Your task to perform on an android device: Open ESPN.com Image 0: 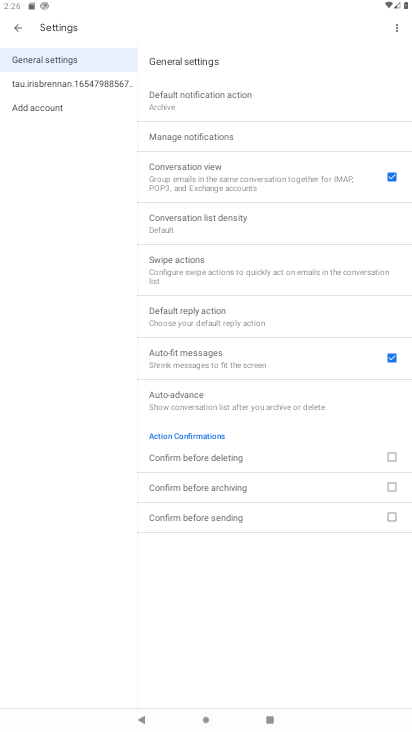
Step 0: press home button
Your task to perform on an android device: Open ESPN.com Image 1: 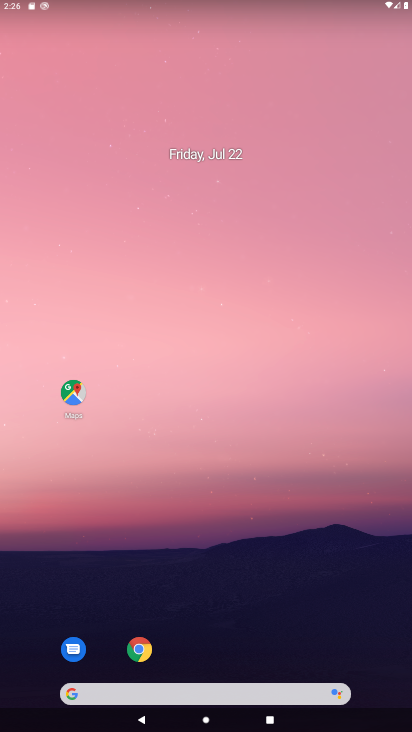
Step 1: click (139, 652)
Your task to perform on an android device: Open ESPN.com Image 2: 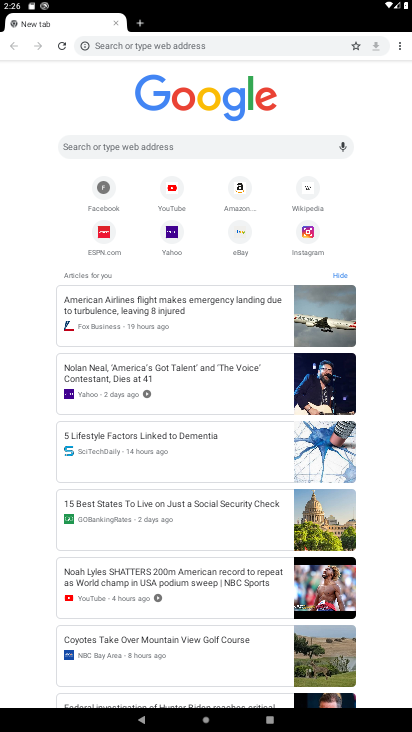
Step 2: click (104, 233)
Your task to perform on an android device: Open ESPN.com Image 3: 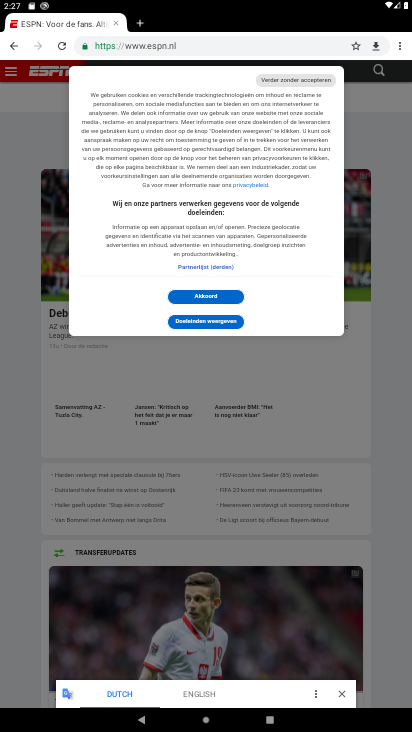
Step 3: task complete